Your task to perform on an android device: See recent photos Image 0: 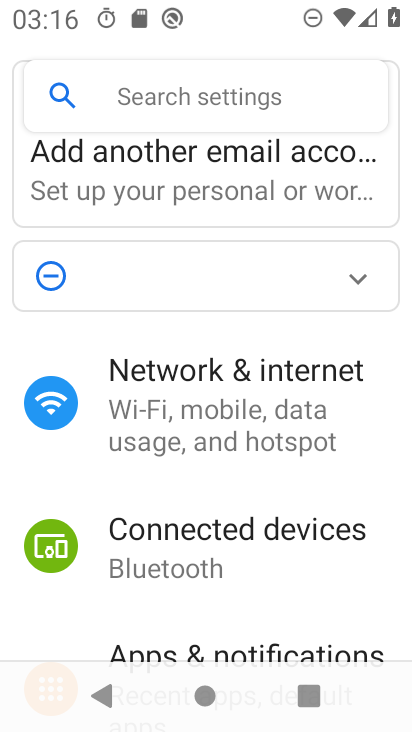
Step 0: press home button
Your task to perform on an android device: See recent photos Image 1: 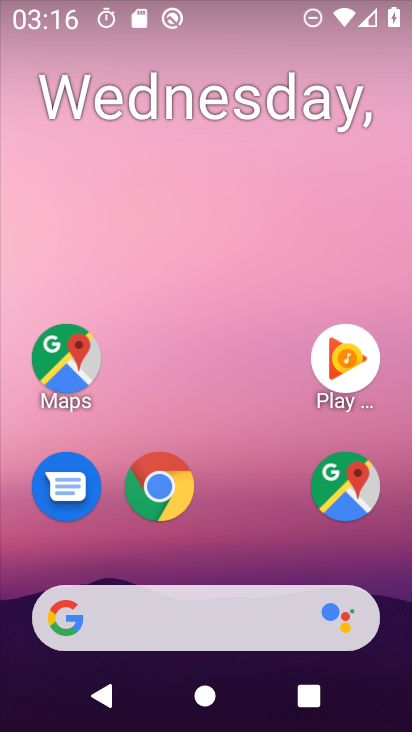
Step 1: drag from (263, 549) to (239, 164)
Your task to perform on an android device: See recent photos Image 2: 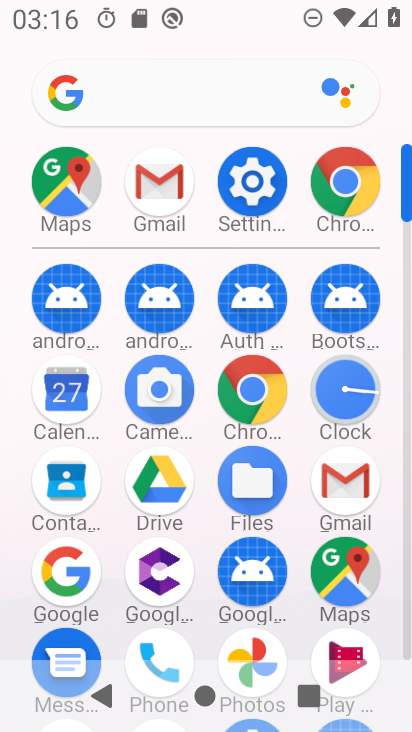
Step 2: drag from (394, 485) to (386, 350)
Your task to perform on an android device: See recent photos Image 3: 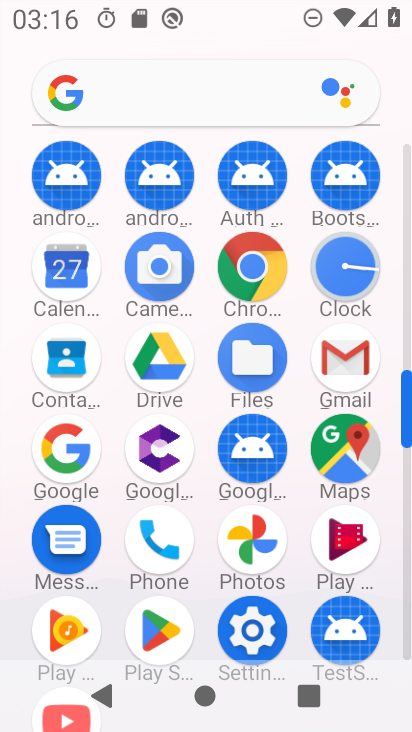
Step 3: click (256, 536)
Your task to perform on an android device: See recent photos Image 4: 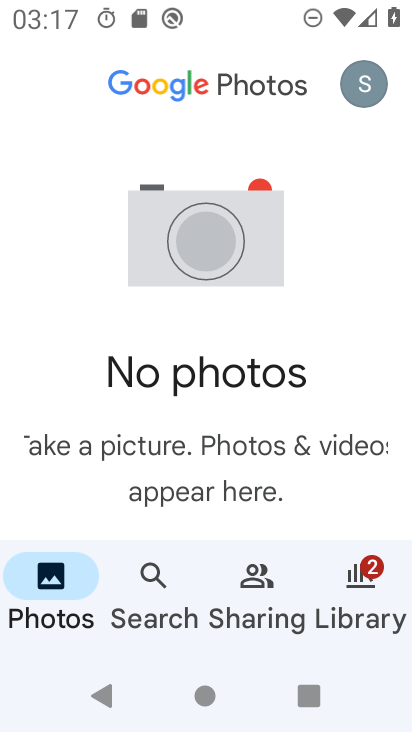
Step 4: task complete